Your task to perform on an android device: visit the assistant section in the google photos Image 0: 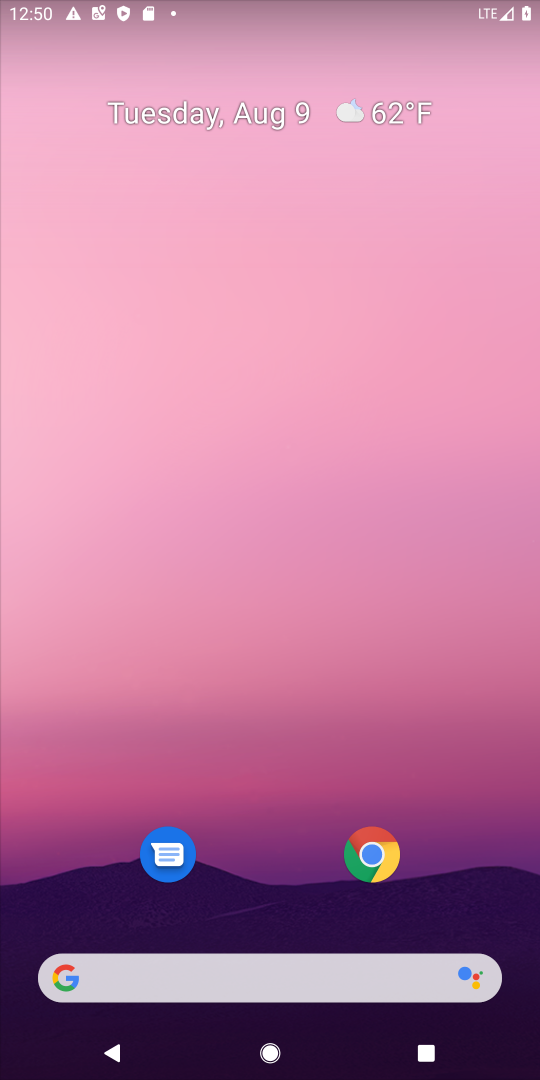
Step 0: drag from (308, 839) to (336, 13)
Your task to perform on an android device: visit the assistant section in the google photos Image 1: 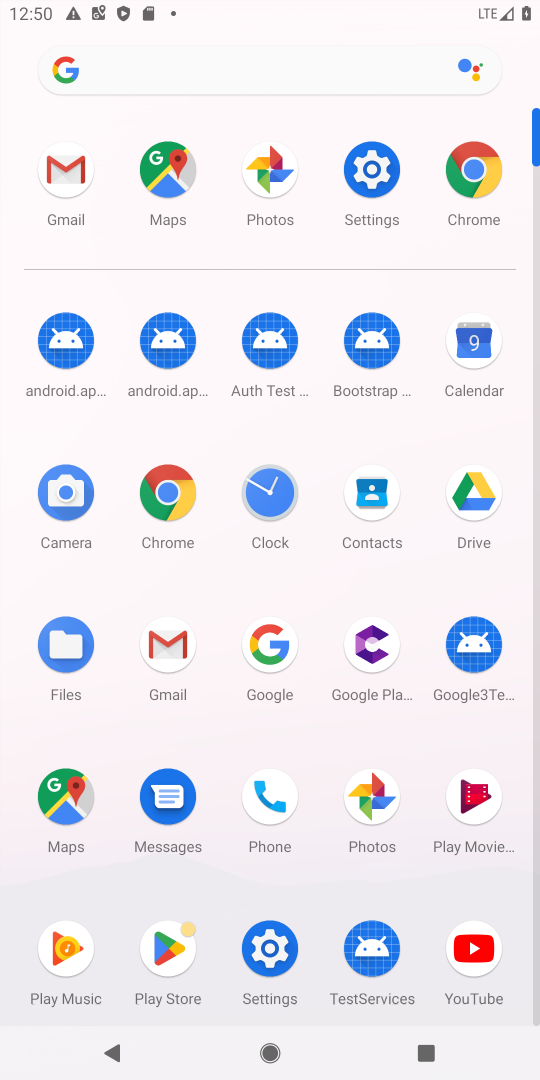
Step 1: click (378, 803)
Your task to perform on an android device: visit the assistant section in the google photos Image 2: 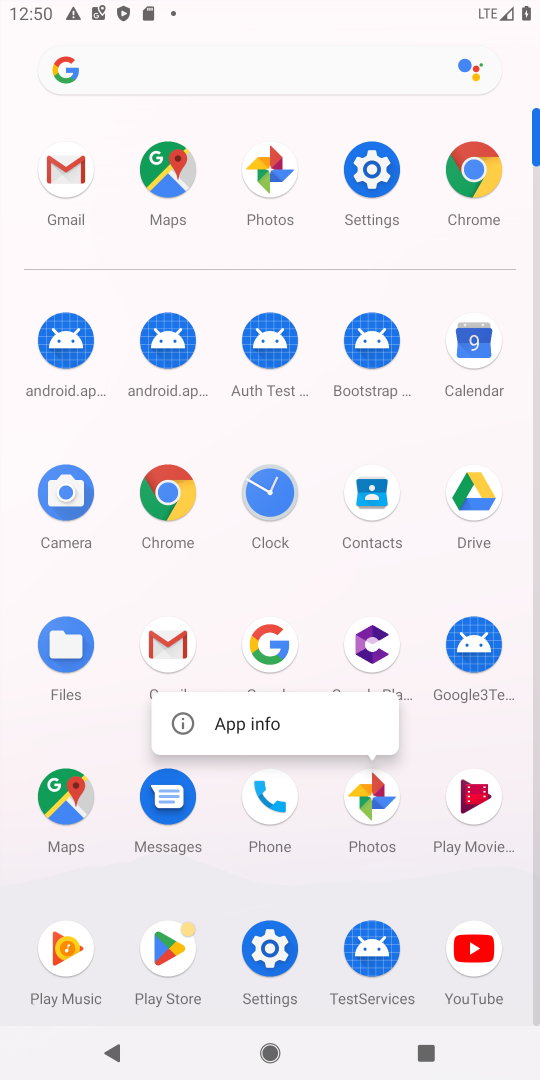
Step 2: click (374, 806)
Your task to perform on an android device: visit the assistant section in the google photos Image 3: 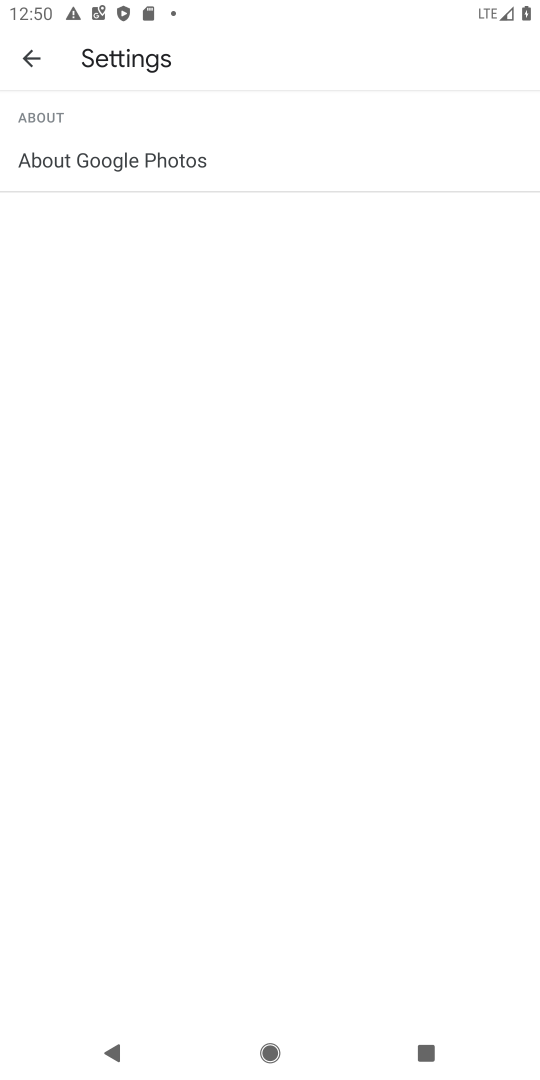
Step 3: click (35, 61)
Your task to perform on an android device: visit the assistant section in the google photos Image 4: 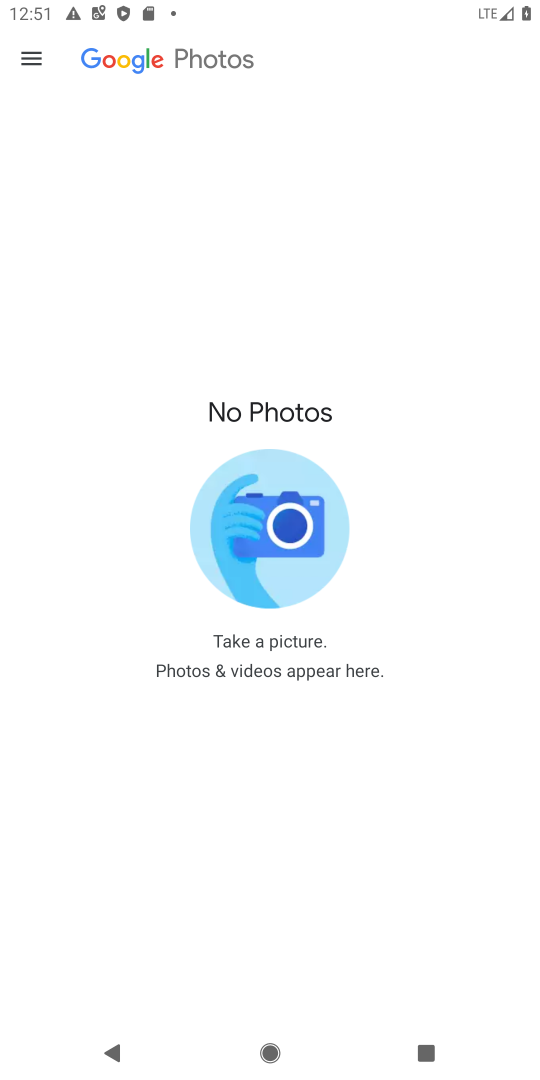
Step 4: click (36, 71)
Your task to perform on an android device: visit the assistant section in the google photos Image 5: 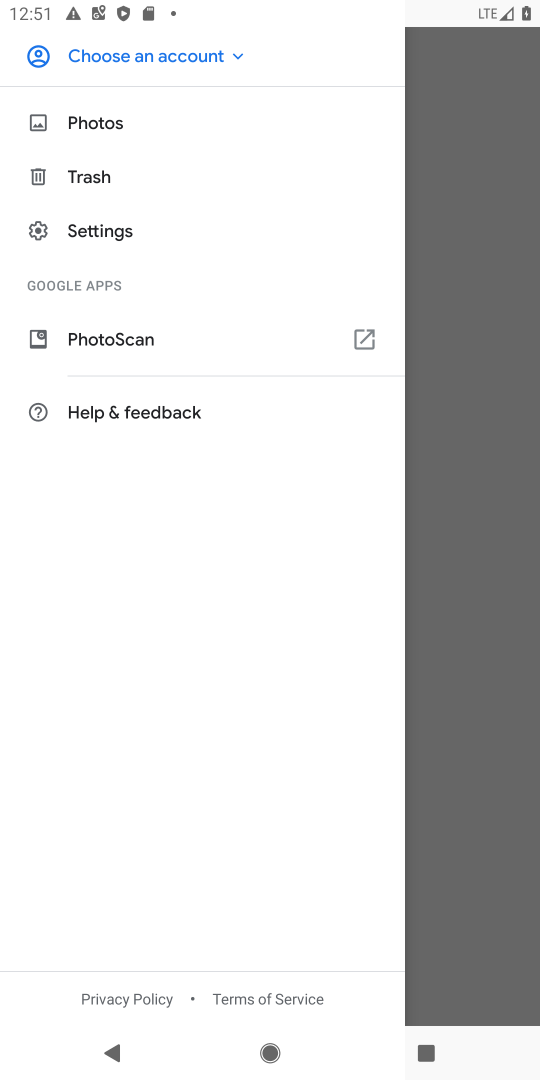
Step 5: click (492, 247)
Your task to perform on an android device: visit the assistant section in the google photos Image 6: 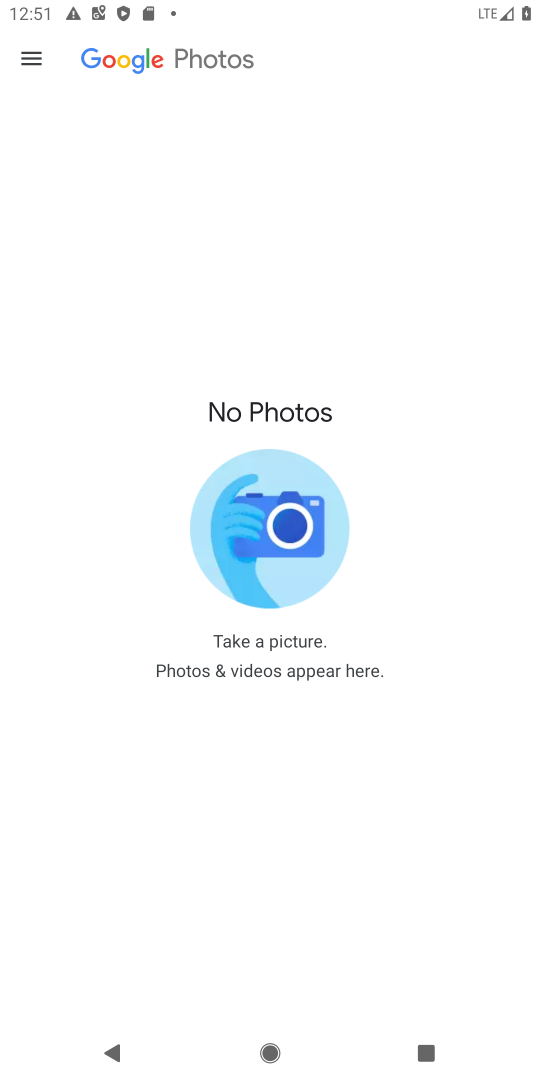
Step 6: task complete